Your task to perform on an android device: Show me productivity apps on the Play Store Image 0: 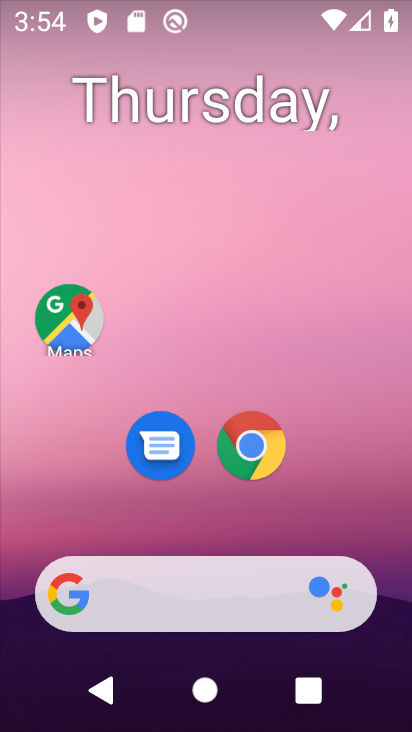
Step 0: drag from (378, 523) to (396, 94)
Your task to perform on an android device: Show me productivity apps on the Play Store Image 1: 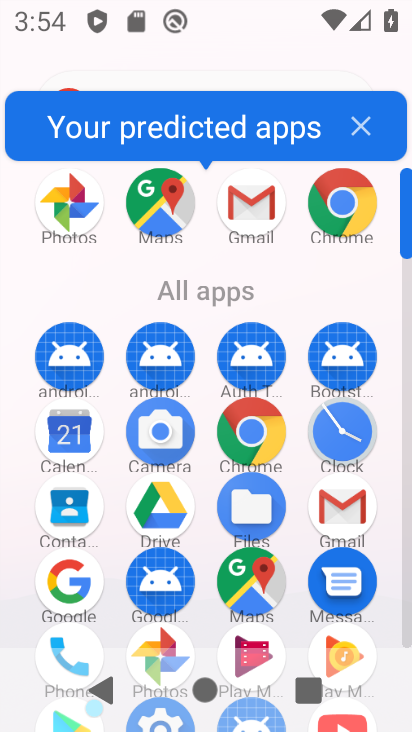
Step 1: drag from (386, 567) to (393, 327)
Your task to perform on an android device: Show me productivity apps on the Play Store Image 2: 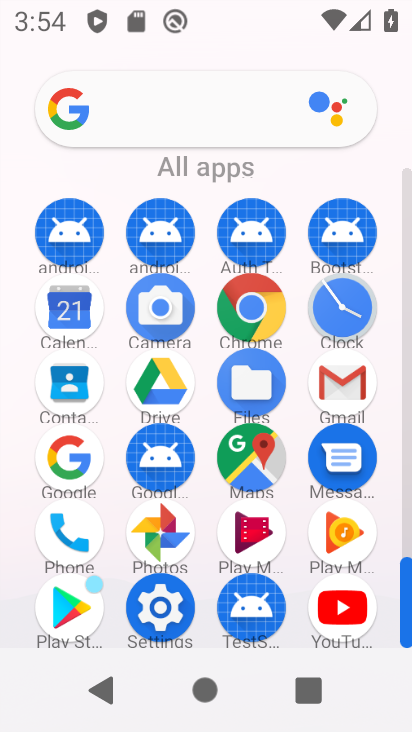
Step 2: click (59, 596)
Your task to perform on an android device: Show me productivity apps on the Play Store Image 3: 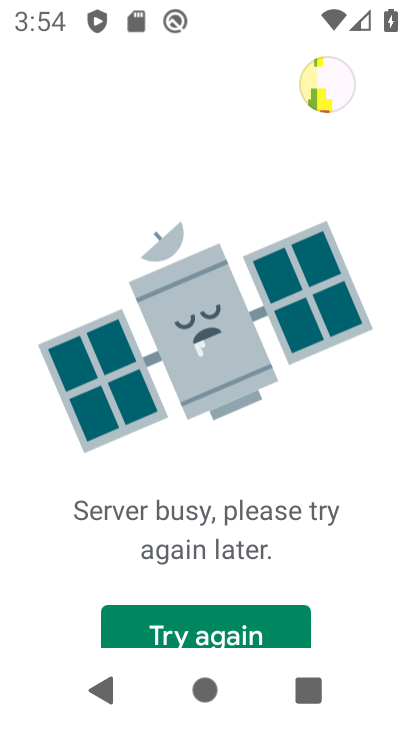
Step 3: click (235, 618)
Your task to perform on an android device: Show me productivity apps on the Play Store Image 4: 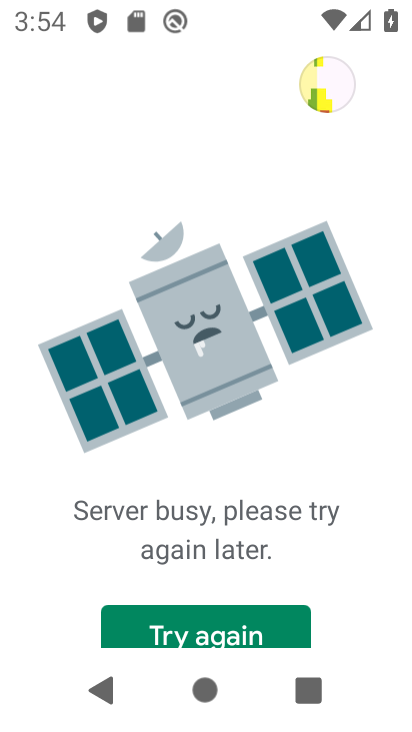
Step 4: task complete